Your task to perform on an android device: What's the news in the Philippines? Image 0: 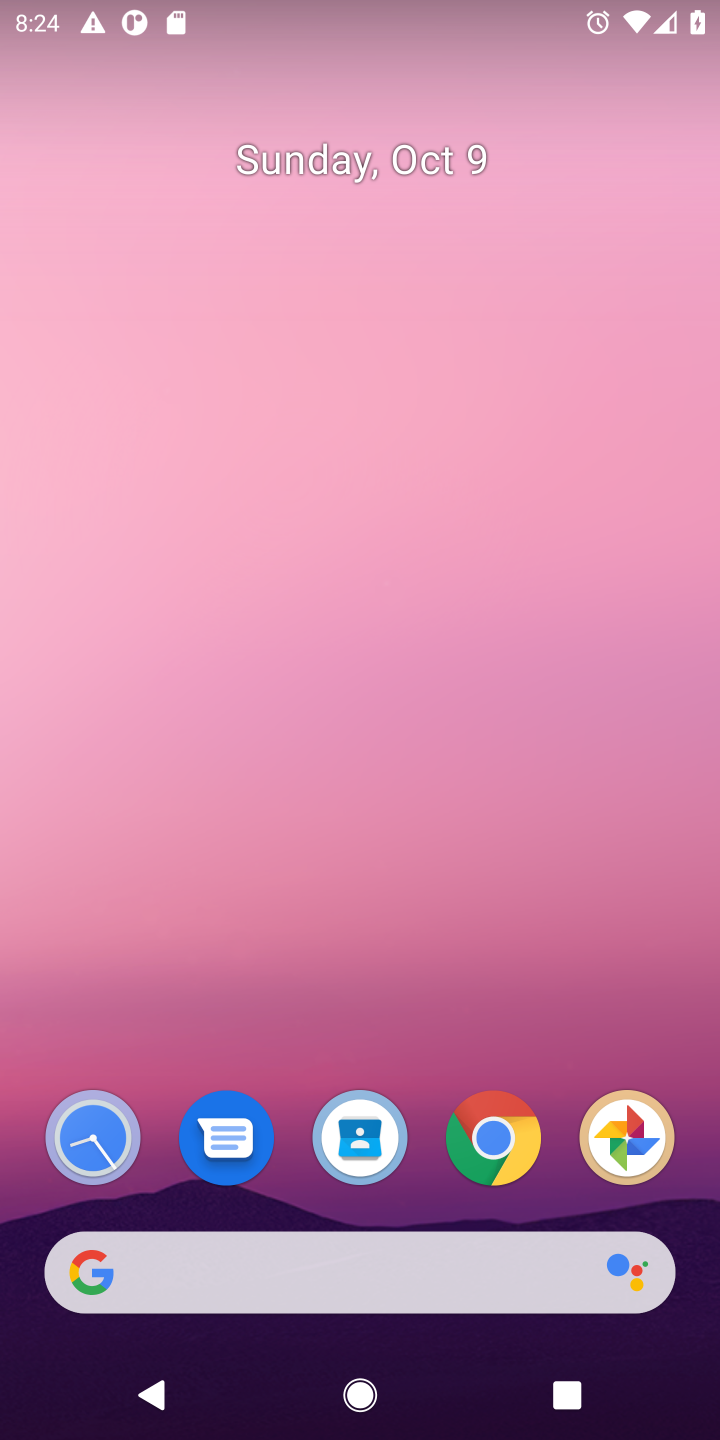
Step 0: drag from (325, 1267) to (320, 629)
Your task to perform on an android device: What's the news in the Philippines? Image 1: 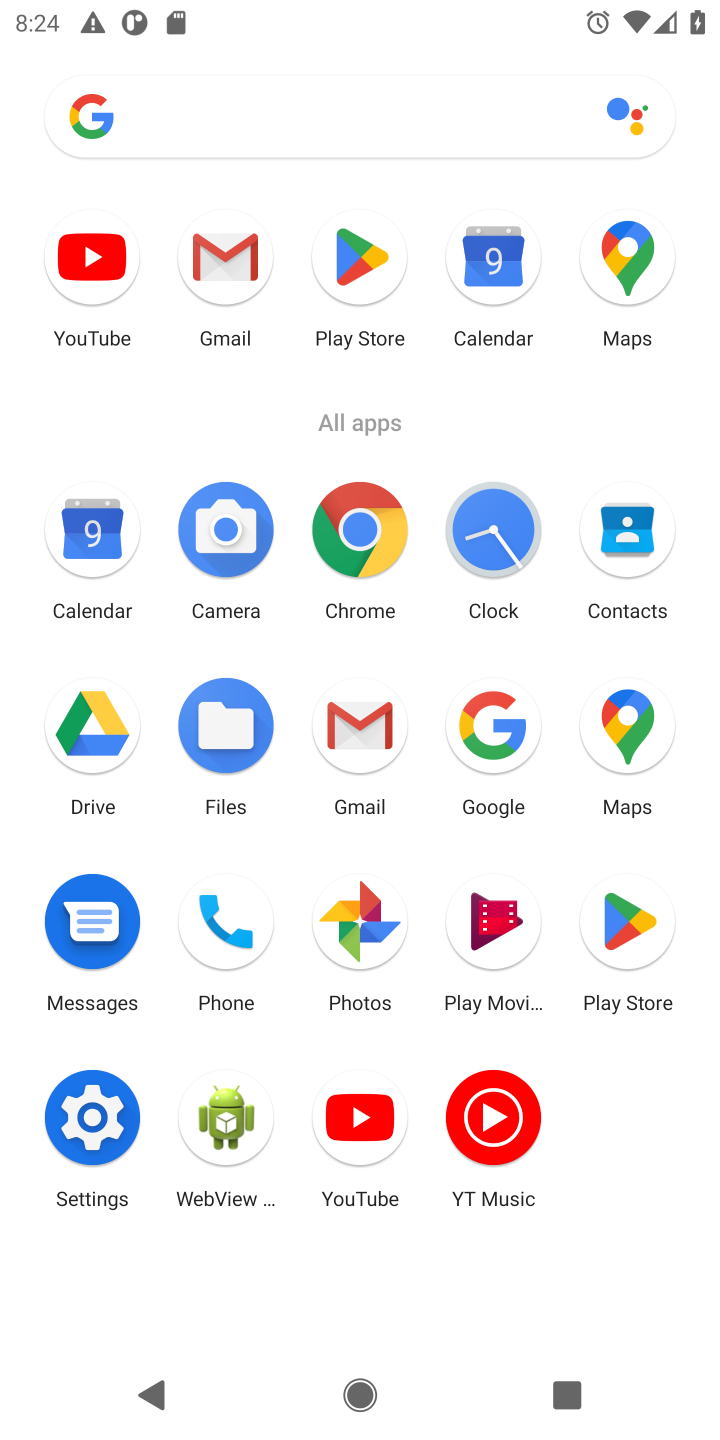
Step 1: click (518, 713)
Your task to perform on an android device: What's the news in the Philippines? Image 2: 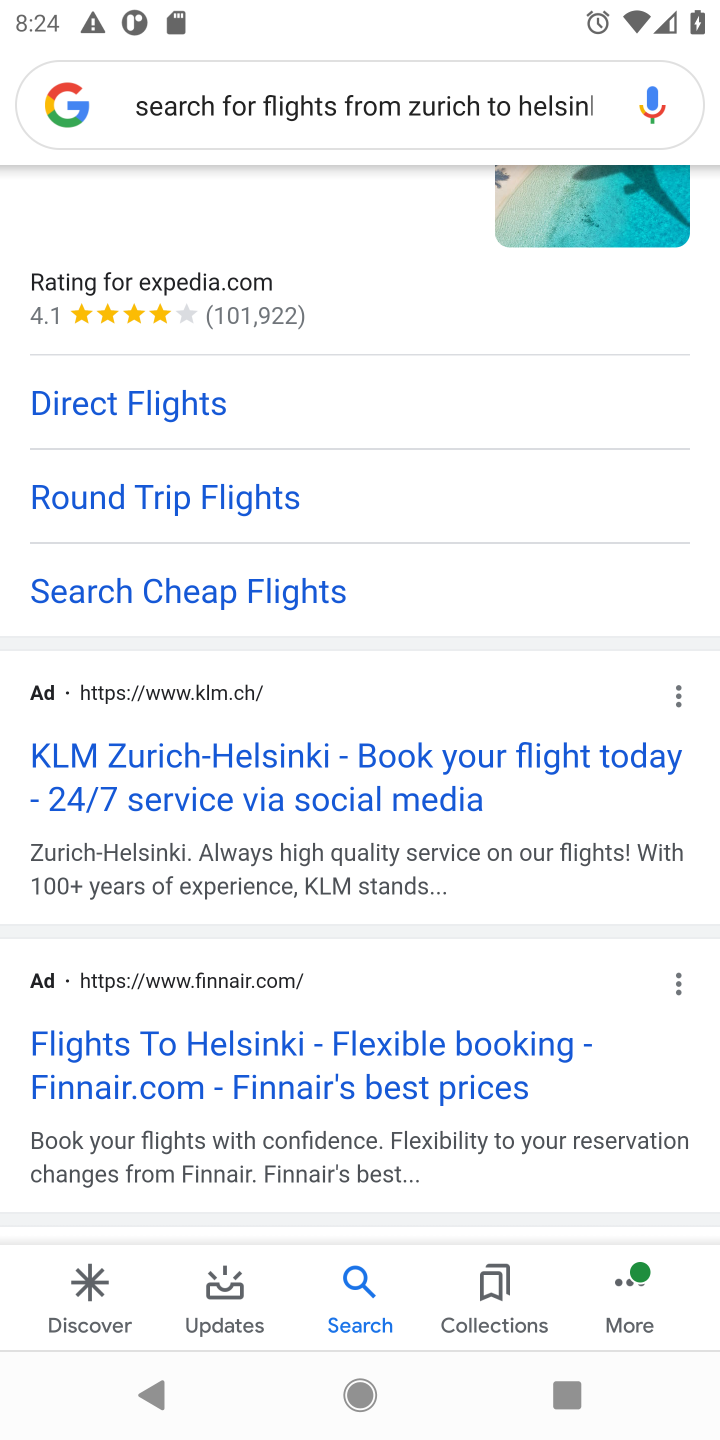
Step 2: click (538, 79)
Your task to perform on an android device: What's the news in the Philippines? Image 3: 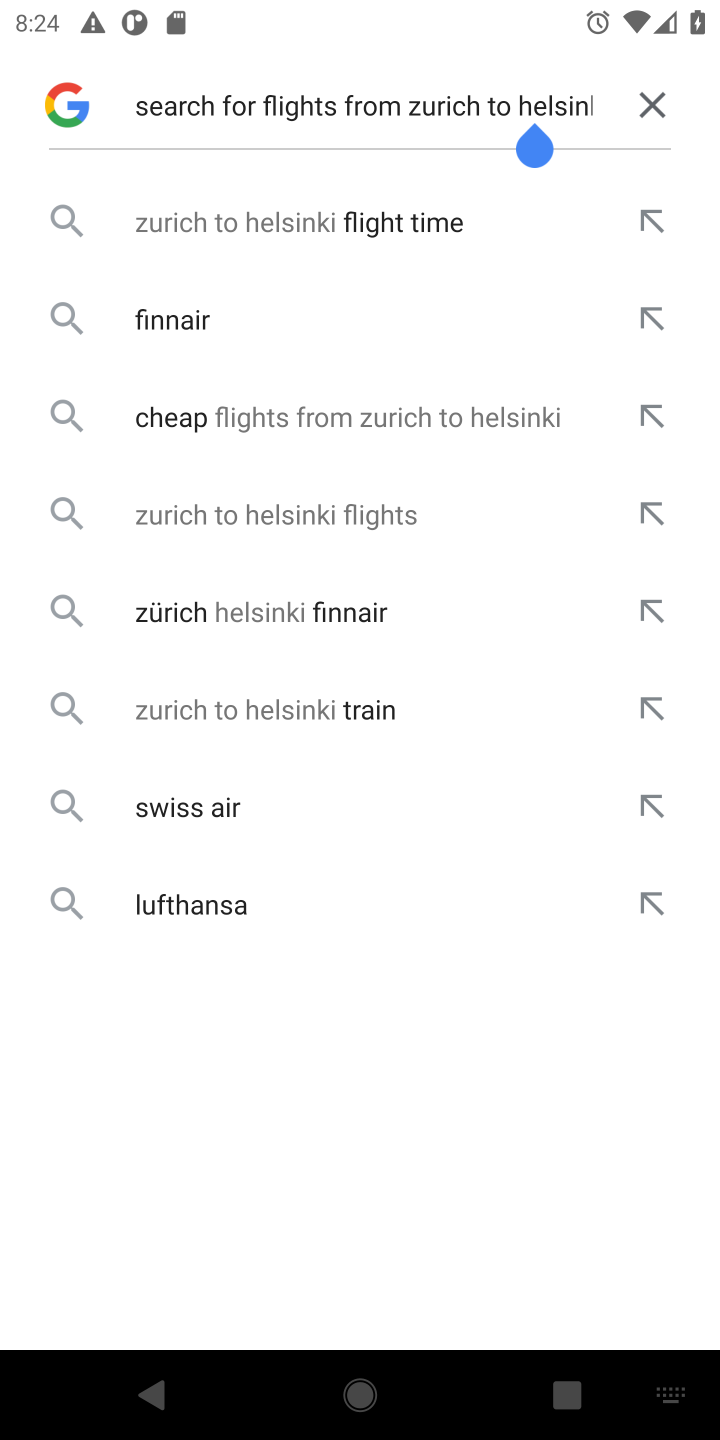
Step 3: click (659, 99)
Your task to perform on an android device: What's the news in the Philippines? Image 4: 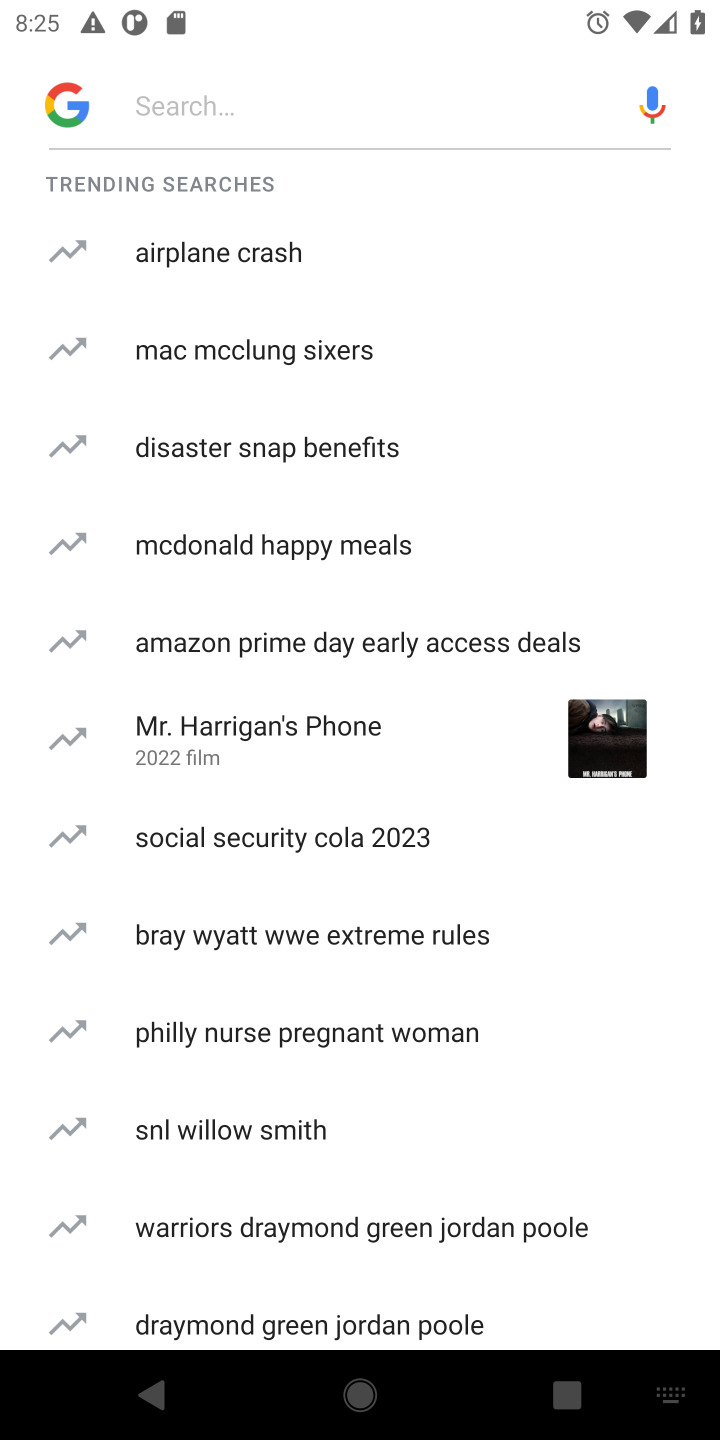
Step 4: click (228, 69)
Your task to perform on an android device: What's the news in the Philippines? Image 5: 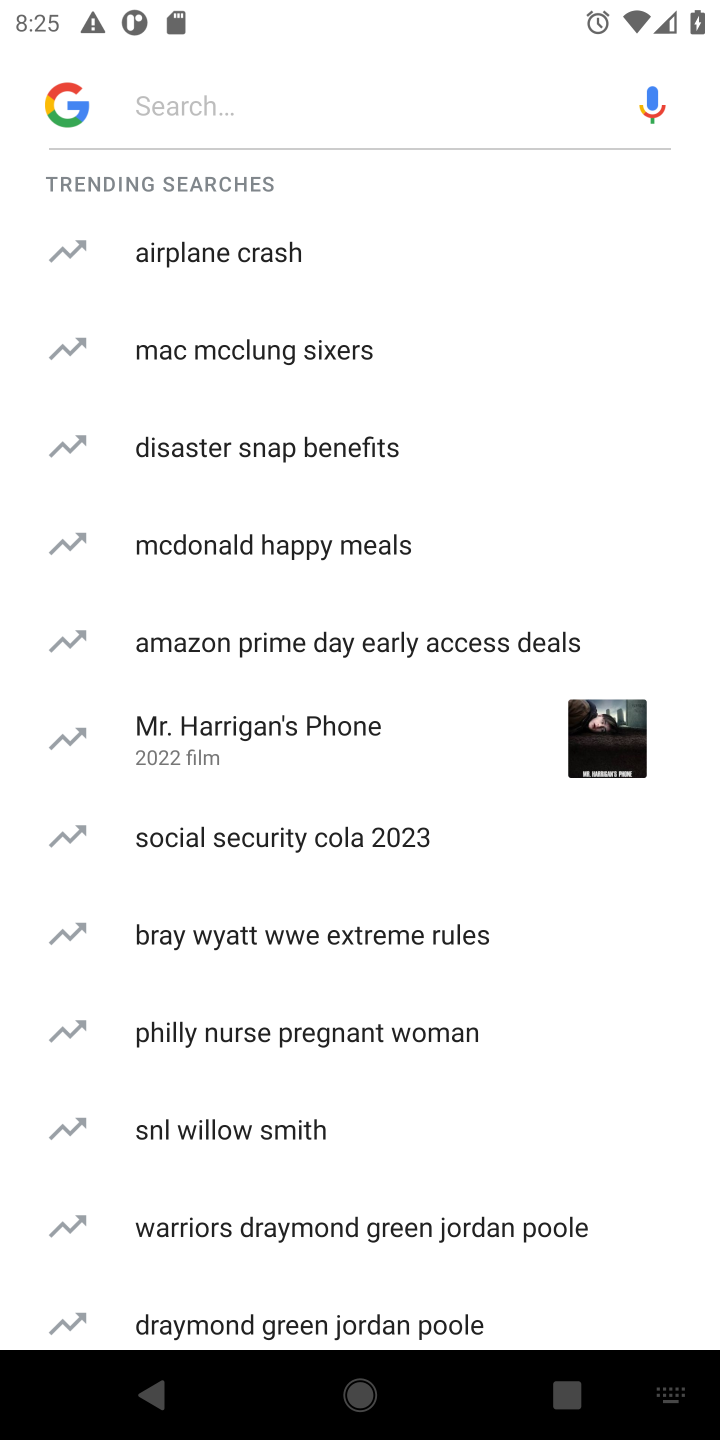
Step 5: type "What's the news in the Philippines? "
Your task to perform on an android device: What's the news in the Philippines? Image 6: 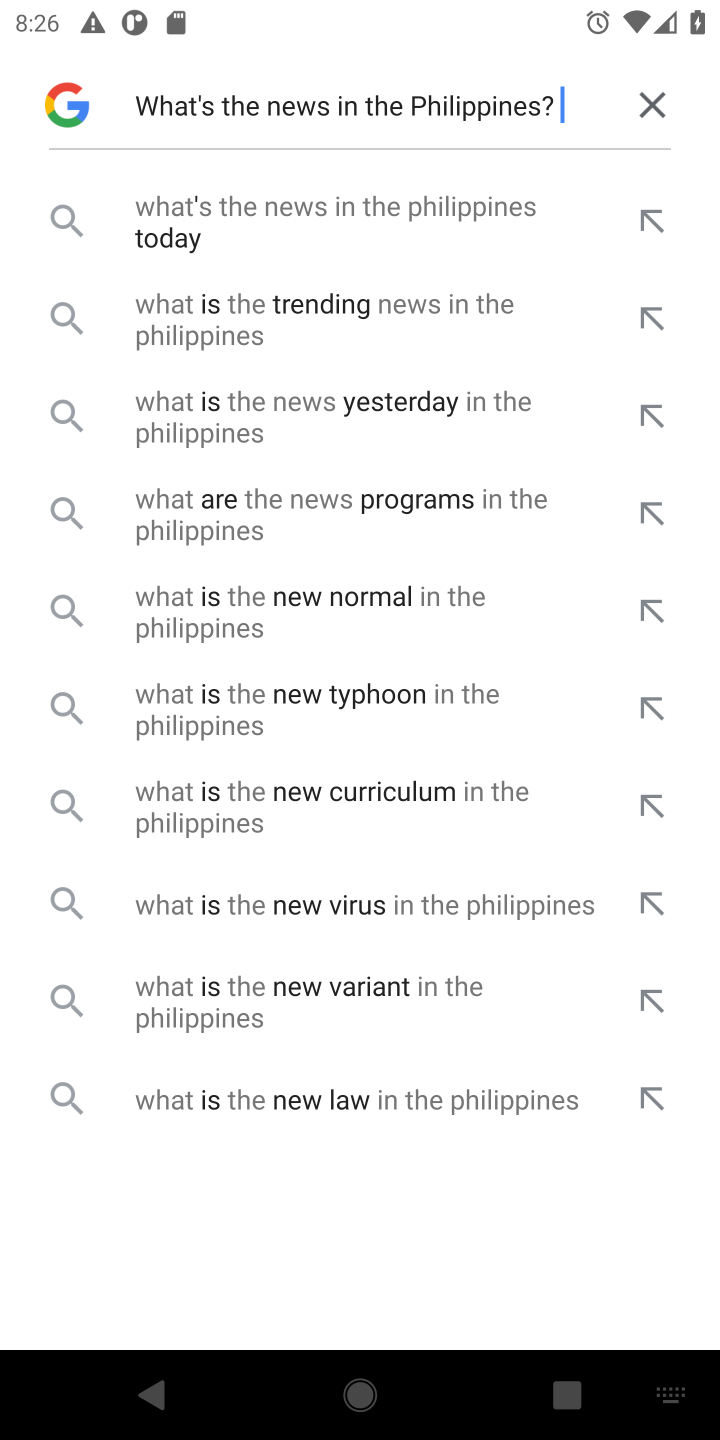
Step 6: click (292, 193)
Your task to perform on an android device: What's the news in the Philippines? Image 7: 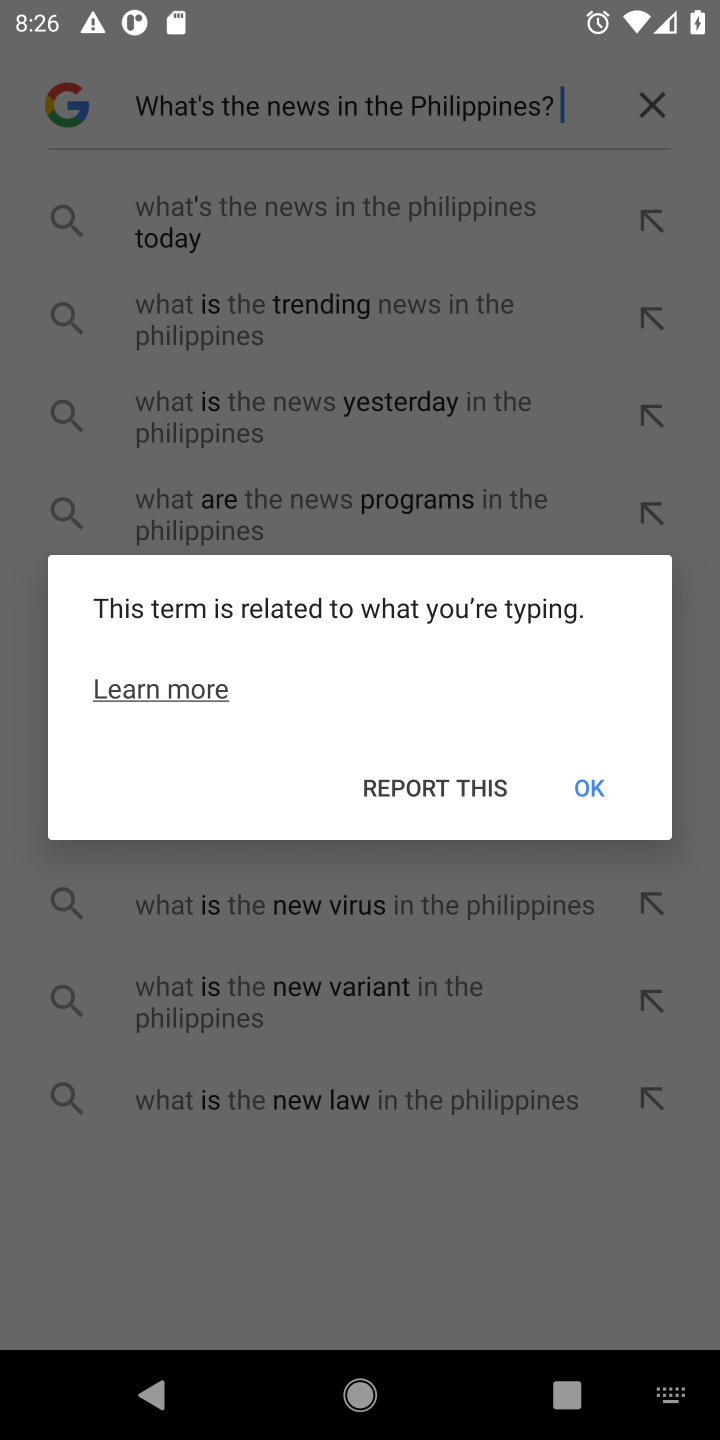
Step 7: click (590, 802)
Your task to perform on an android device: What's the news in the Philippines? Image 8: 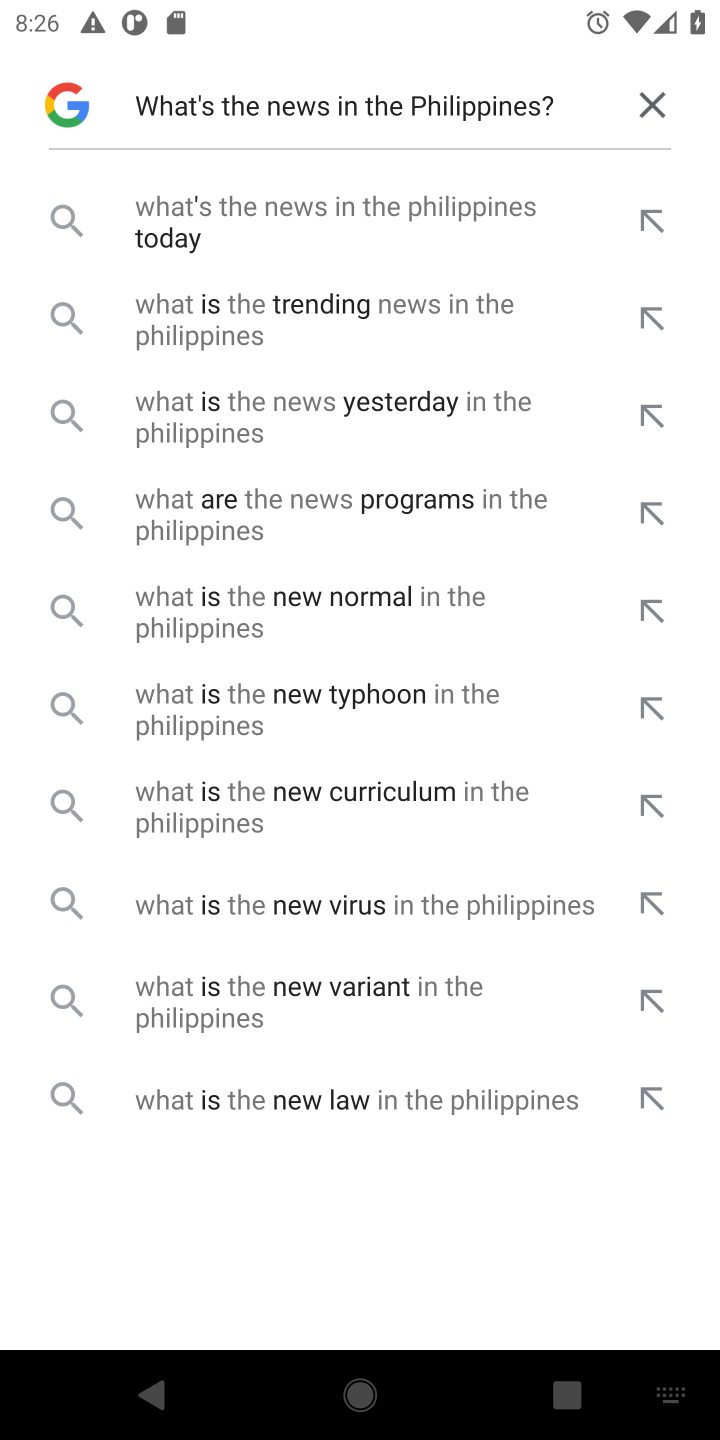
Step 8: click (276, 233)
Your task to perform on an android device: What's the news in the Philippines? Image 9: 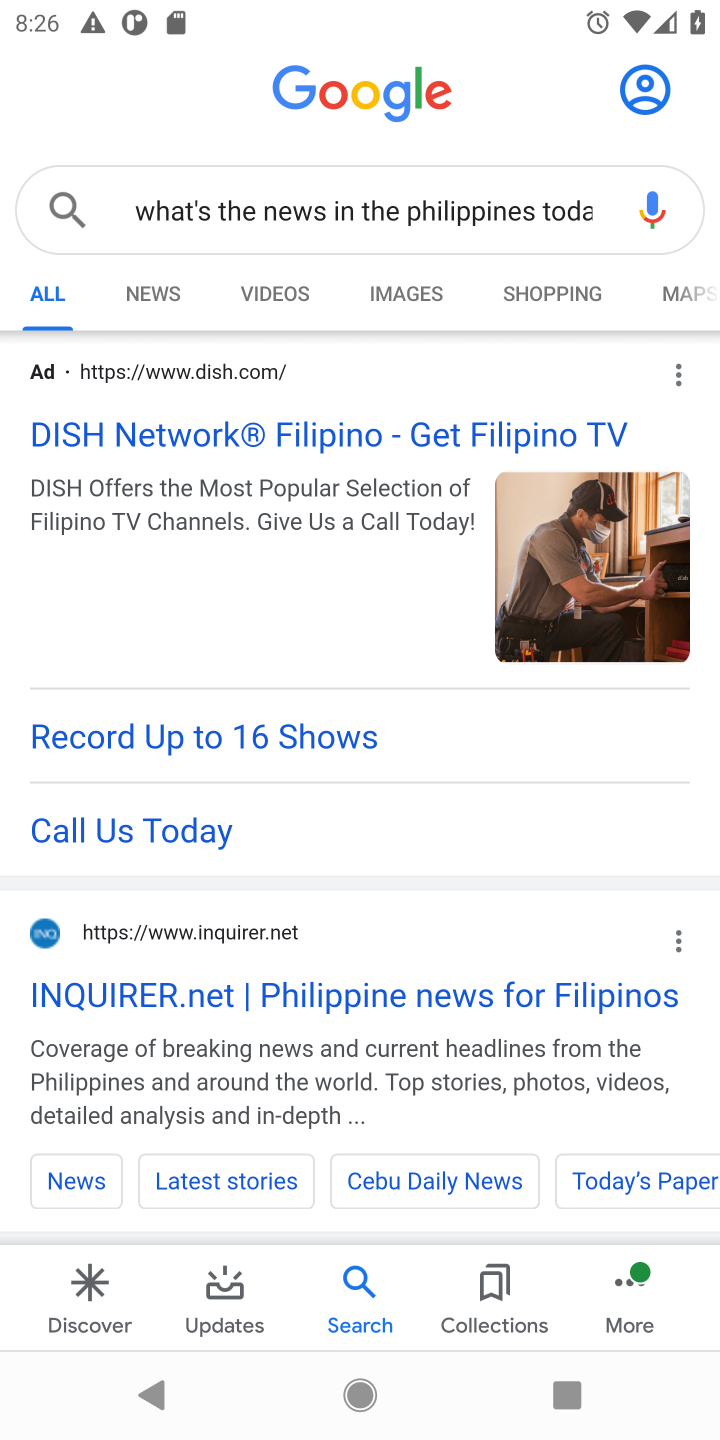
Step 9: task complete